Your task to perform on an android device: move a message to another label in the gmail app Image 0: 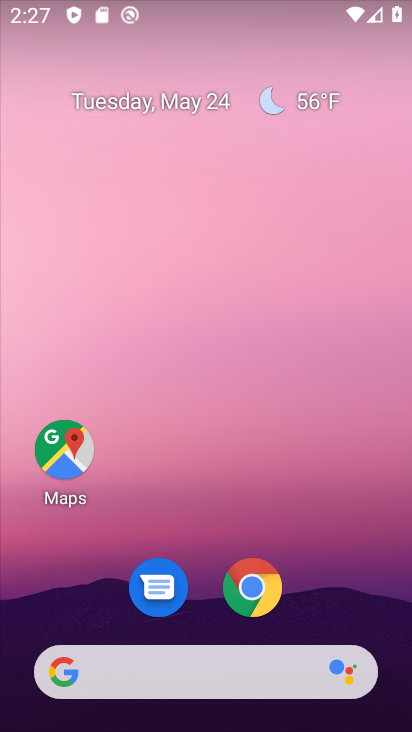
Step 0: drag from (214, 610) to (166, 122)
Your task to perform on an android device: move a message to another label in the gmail app Image 1: 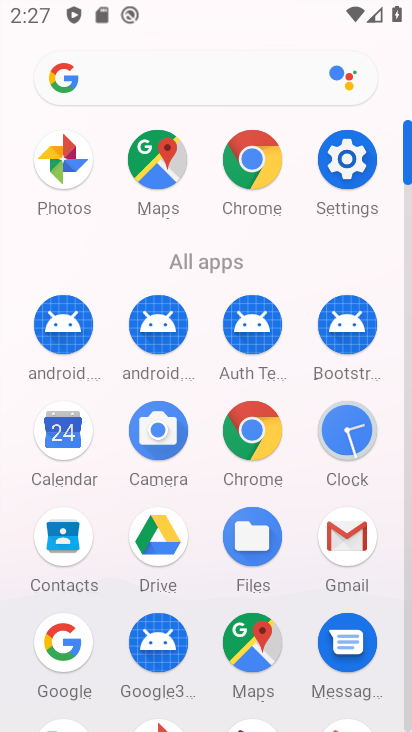
Step 1: click (336, 553)
Your task to perform on an android device: move a message to another label in the gmail app Image 2: 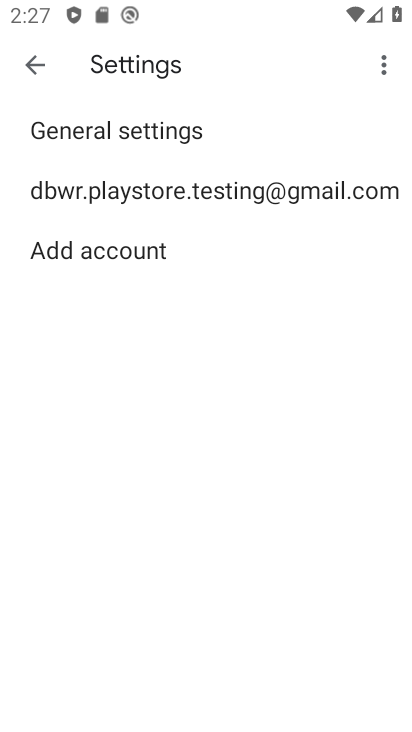
Step 2: click (47, 63)
Your task to perform on an android device: move a message to another label in the gmail app Image 3: 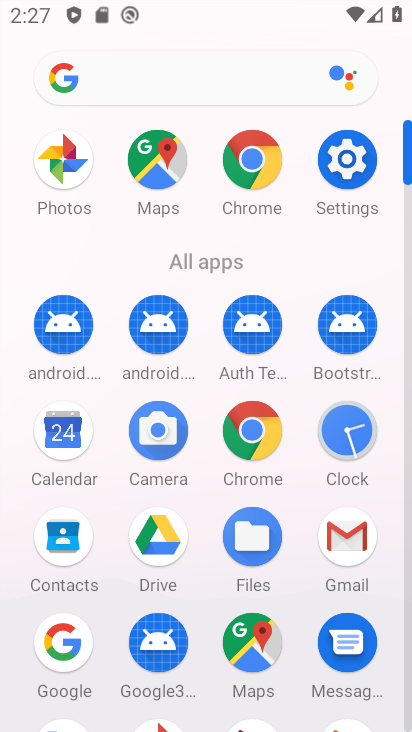
Step 3: click (318, 535)
Your task to perform on an android device: move a message to another label in the gmail app Image 4: 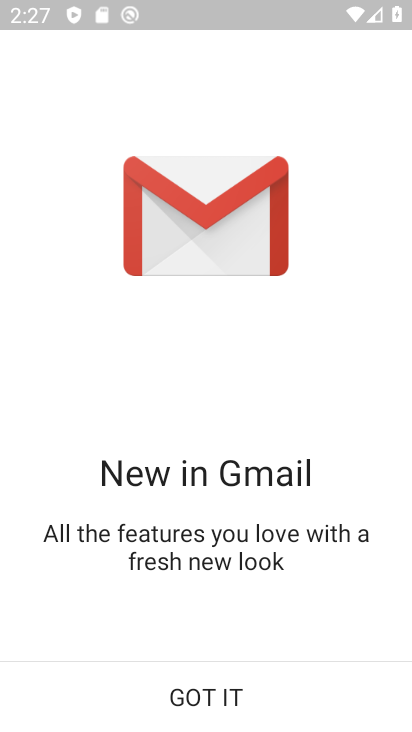
Step 4: click (162, 711)
Your task to perform on an android device: move a message to another label in the gmail app Image 5: 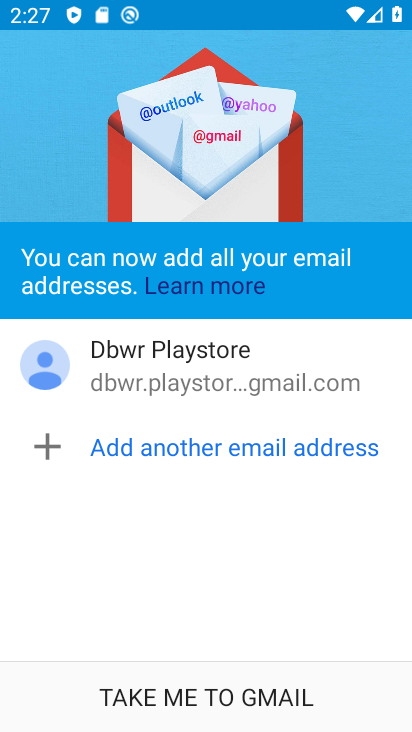
Step 5: click (162, 711)
Your task to perform on an android device: move a message to another label in the gmail app Image 6: 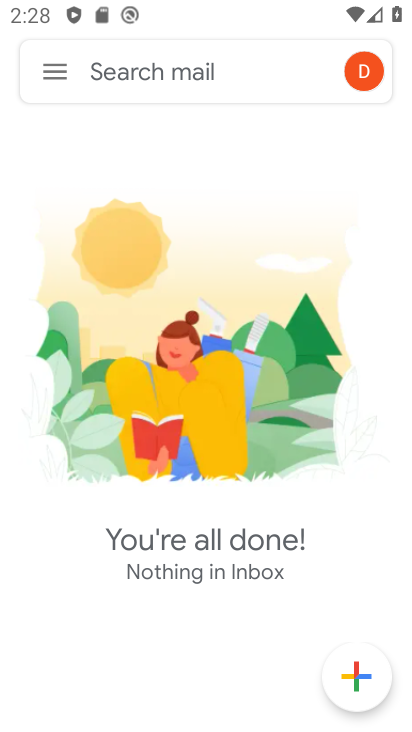
Step 6: task complete